Your task to perform on an android device: turn on airplane mode Image 0: 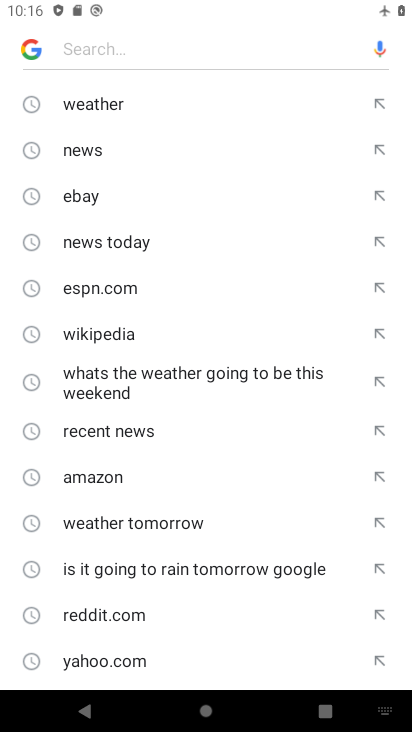
Step 0: press back button
Your task to perform on an android device: turn on airplane mode Image 1: 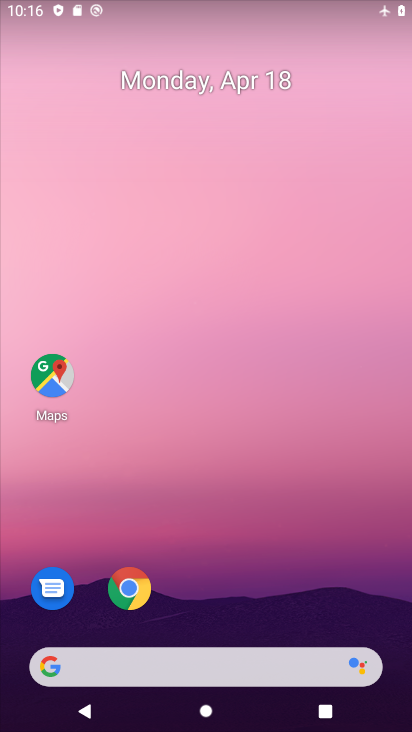
Step 1: drag from (223, 593) to (258, 54)
Your task to perform on an android device: turn on airplane mode Image 2: 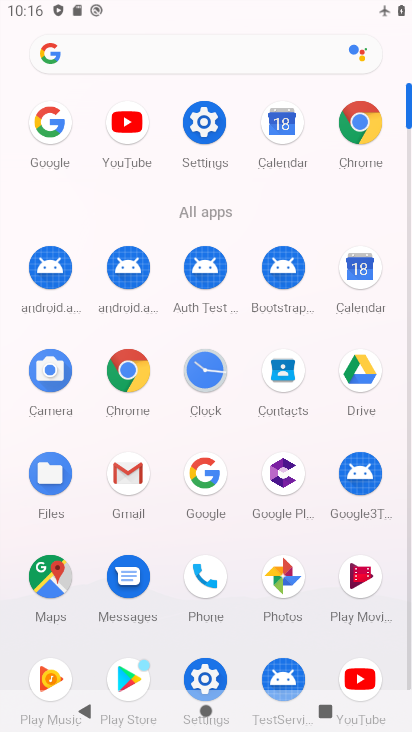
Step 2: click (201, 127)
Your task to perform on an android device: turn on airplane mode Image 3: 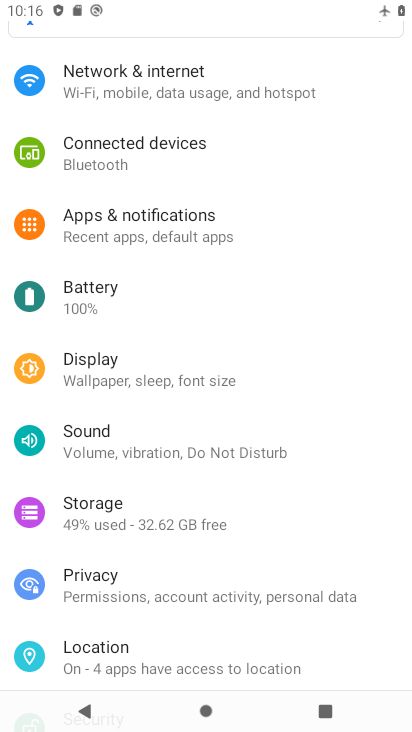
Step 3: click (212, 92)
Your task to perform on an android device: turn on airplane mode Image 4: 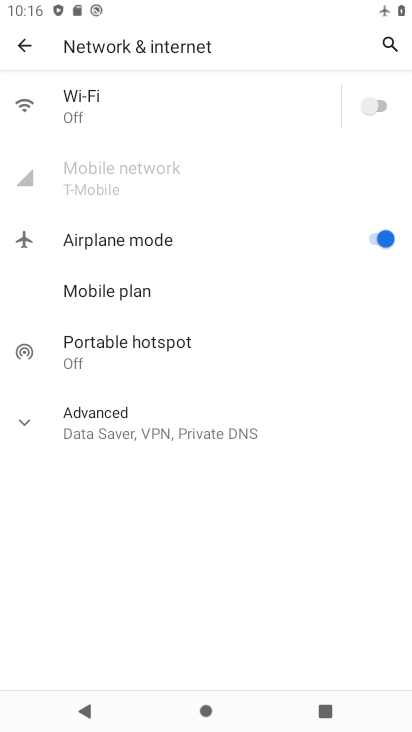
Step 4: task complete